Your task to perform on an android device: open app "Upside-Cash back on gas & food" Image 0: 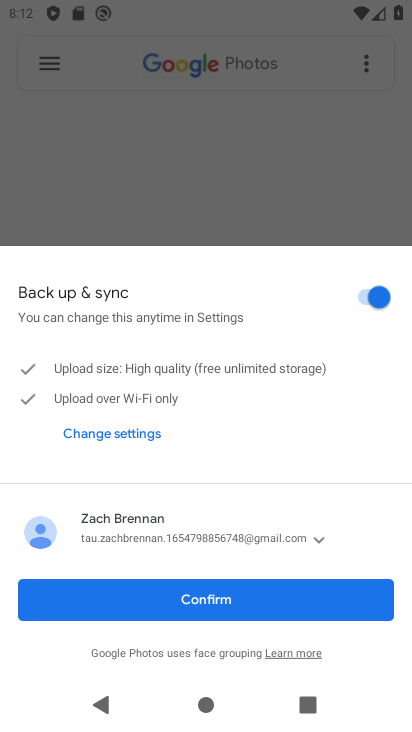
Step 0: press home button
Your task to perform on an android device: open app "Upside-Cash back on gas & food" Image 1: 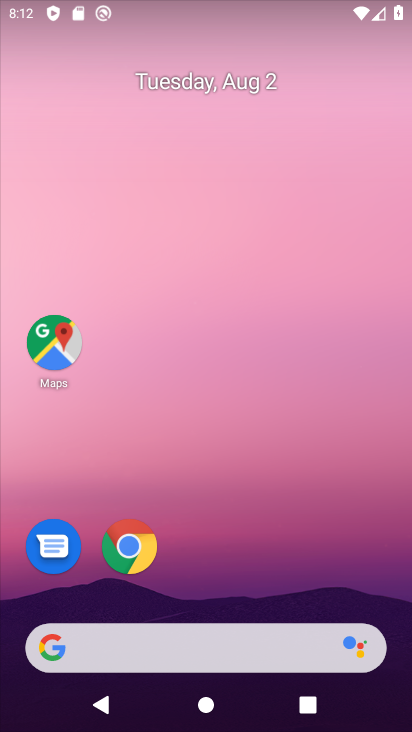
Step 1: drag from (188, 210) to (213, 4)
Your task to perform on an android device: open app "Upside-Cash back on gas & food" Image 2: 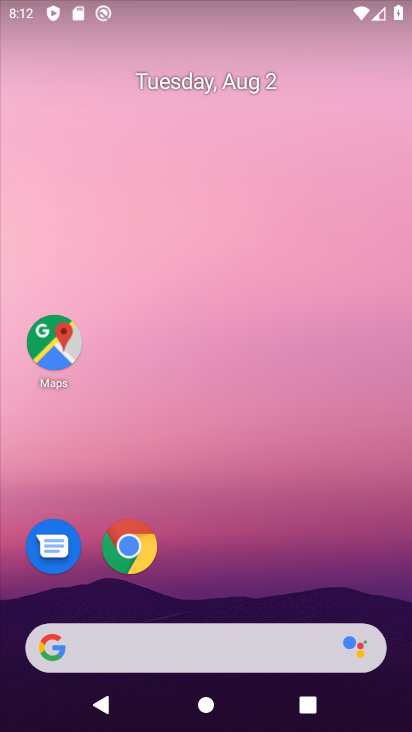
Step 2: drag from (212, 596) to (266, 20)
Your task to perform on an android device: open app "Upside-Cash back on gas & food" Image 3: 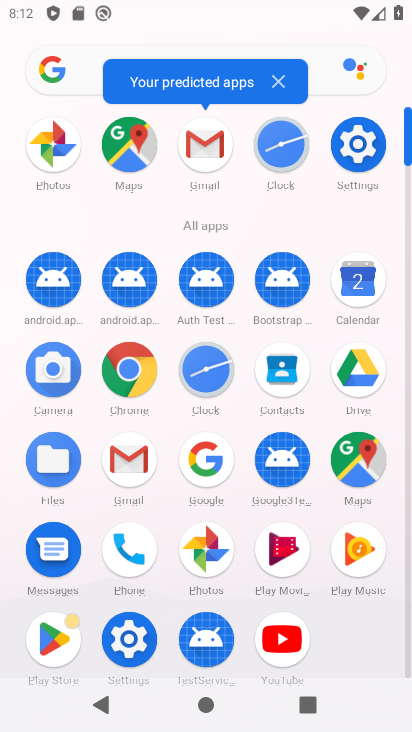
Step 3: click (60, 654)
Your task to perform on an android device: open app "Upside-Cash back on gas & food" Image 4: 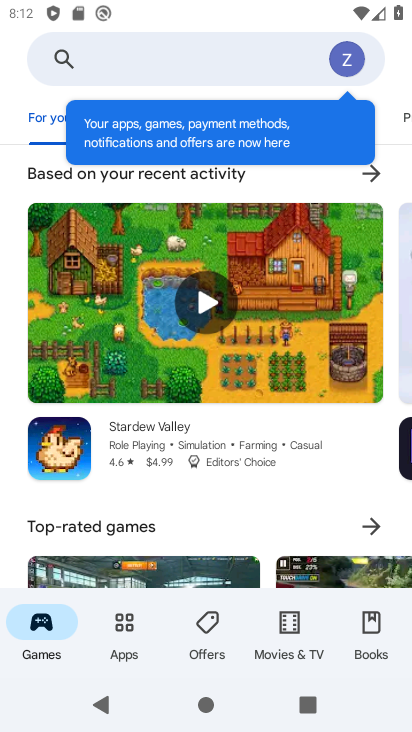
Step 4: click (63, 50)
Your task to perform on an android device: open app "Upside-Cash back on gas & food" Image 5: 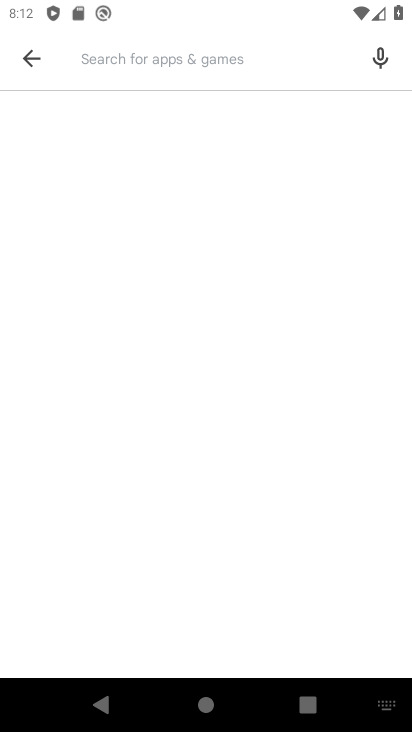
Step 5: type "upside"
Your task to perform on an android device: open app "Upside-Cash back on gas & food" Image 6: 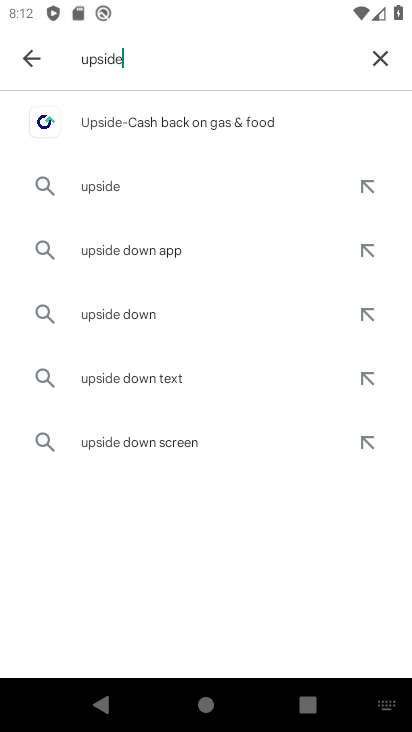
Step 6: click (133, 121)
Your task to perform on an android device: open app "Upside-Cash back on gas & food" Image 7: 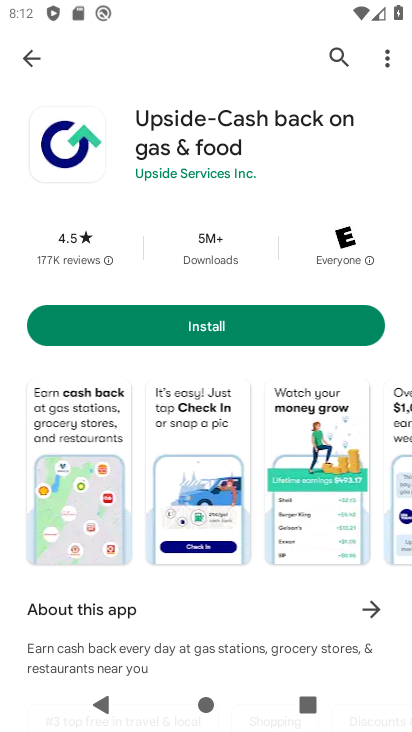
Step 7: task complete